Your task to perform on an android device: Search for Mexican restaurants on Maps Image 0: 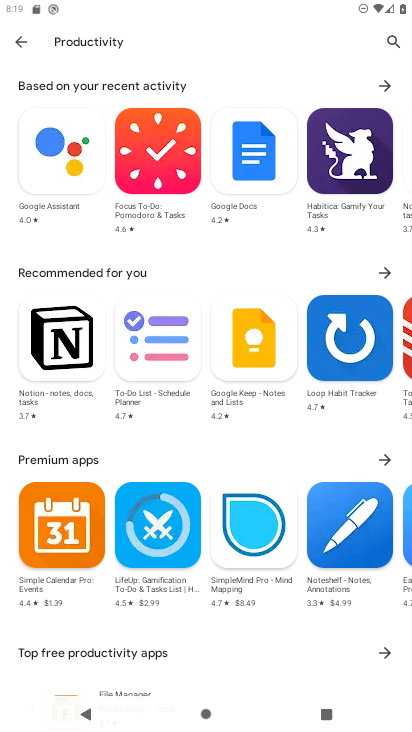
Step 0: press home button
Your task to perform on an android device: Search for Mexican restaurants on Maps Image 1: 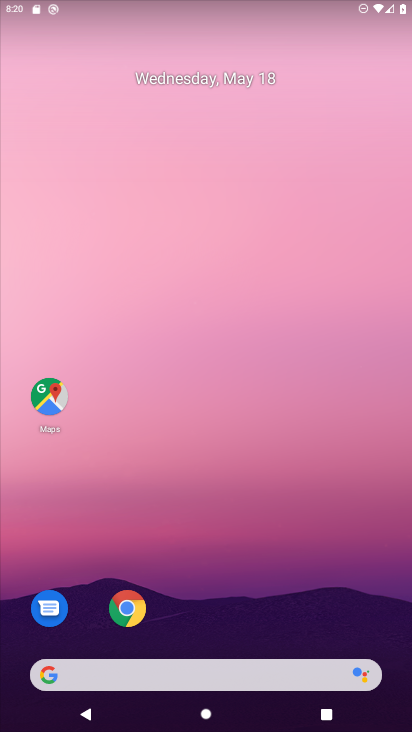
Step 1: click (58, 407)
Your task to perform on an android device: Search for Mexican restaurants on Maps Image 2: 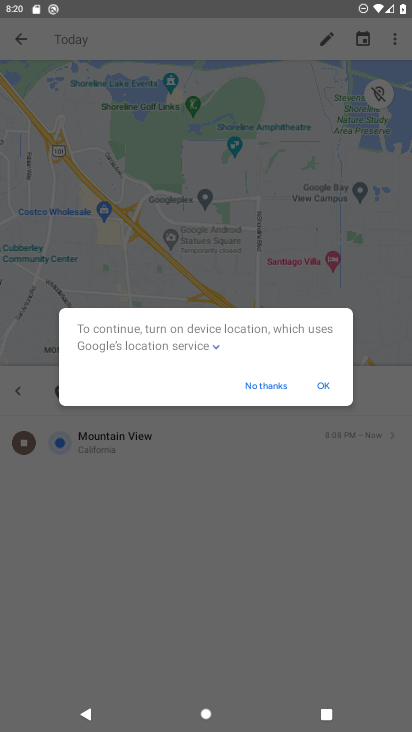
Step 2: click (322, 387)
Your task to perform on an android device: Search for Mexican restaurants on Maps Image 3: 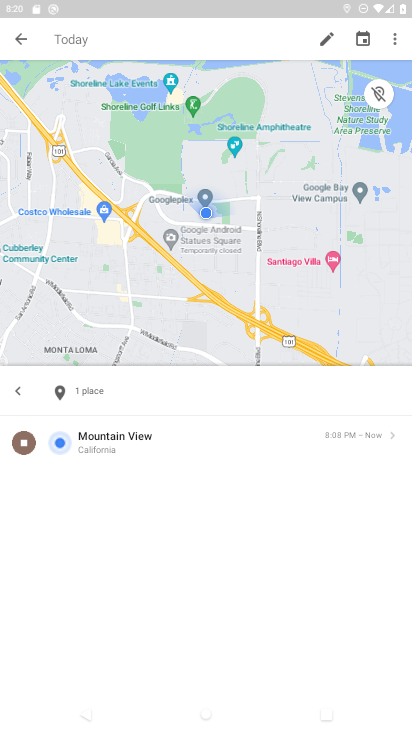
Step 3: click (18, 45)
Your task to perform on an android device: Search for Mexican restaurants on Maps Image 4: 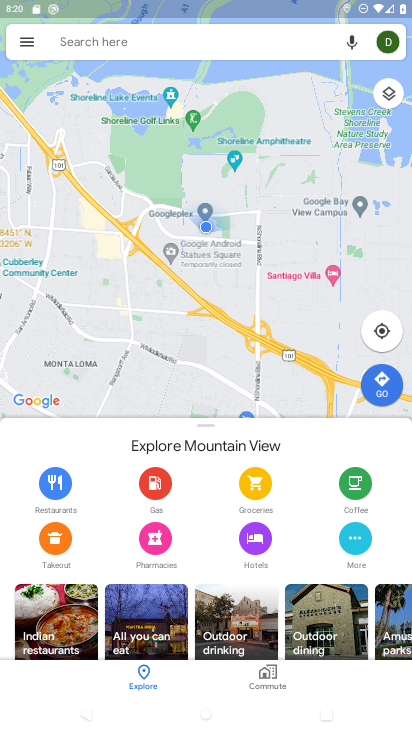
Step 4: click (158, 43)
Your task to perform on an android device: Search for Mexican restaurants on Maps Image 5: 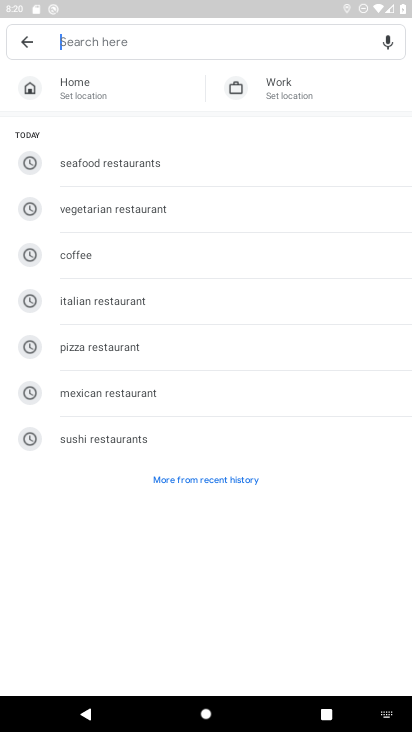
Step 5: click (132, 399)
Your task to perform on an android device: Search for Mexican restaurants on Maps Image 6: 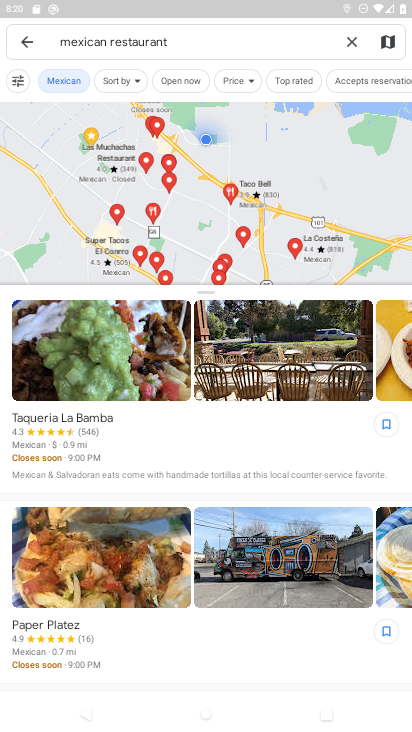
Step 6: task complete